Your task to perform on an android device: Search for Italian restaurants on Maps Image 0: 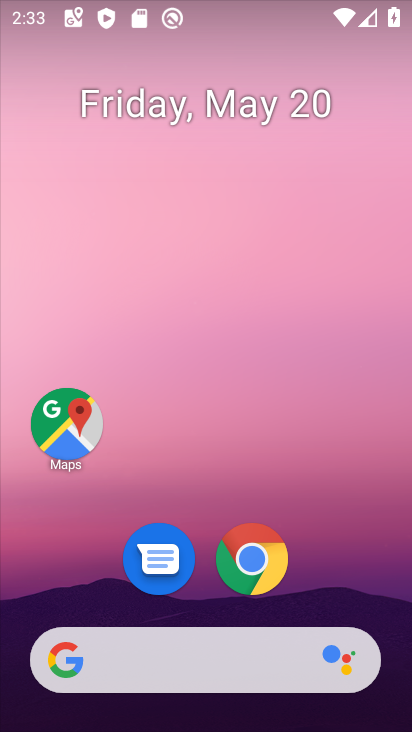
Step 0: click (66, 426)
Your task to perform on an android device: Search for Italian restaurants on Maps Image 1: 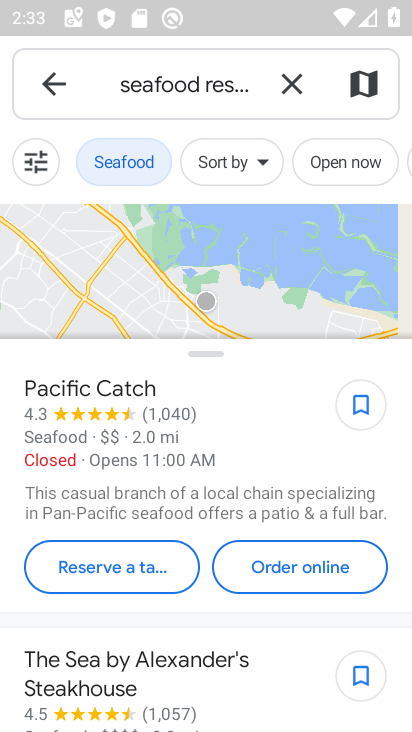
Step 1: click (286, 74)
Your task to perform on an android device: Search for Italian restaurants on Maps Image 2: 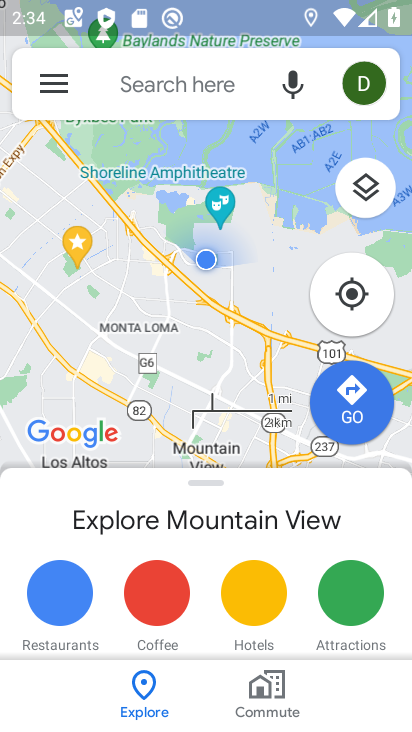
Step 2: click (176, 77)
Your task to perform on an android device: Search for Italian restaurants on Maps Image 3: 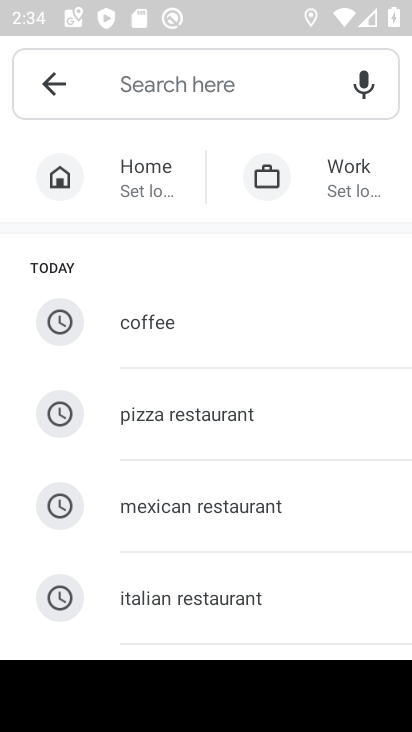
Step 3: click (218, 594)
Your task to perform on an android device: Search for Italian restaurants on Maps Image 4: 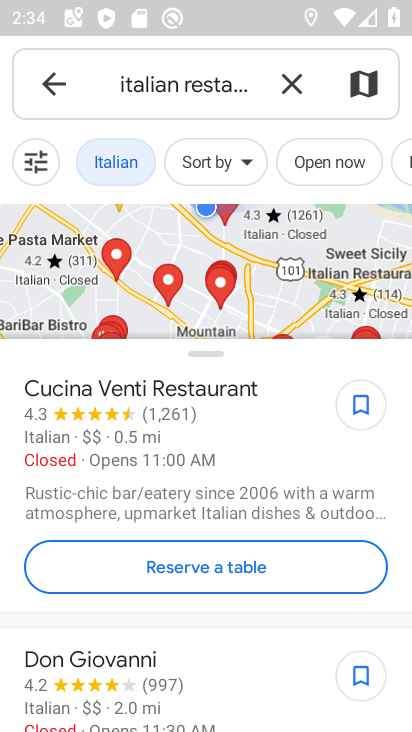
Step 4: task complete